Your task to perform on an android device: open app "DuckDuckGo Privacy Browser" Image 0: 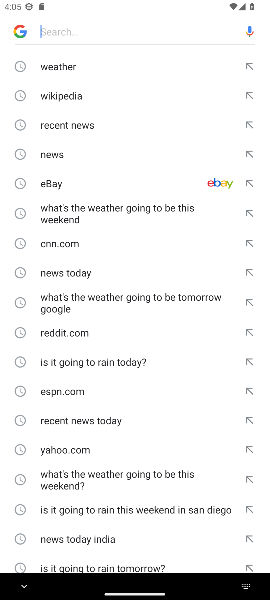
Step 0: press home button
Your task to perform on an android device: open app "DuckDuckGo Privacy Browser" Image 1: 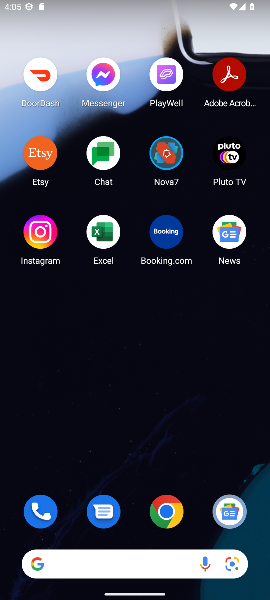
Step 1: drag from (94, 404) to (201, 179)
Your task to perform on an android device: open app "DuckDuckGo Privacy Browser" Image 2: 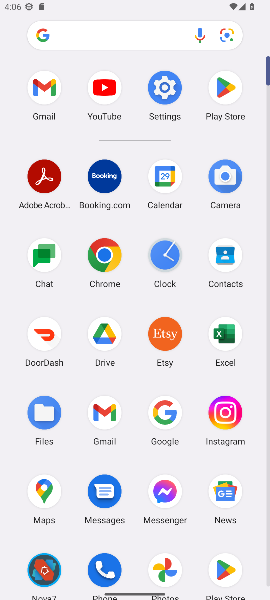
Step 2: click (234, 573)
Your task to perform on an android device: open app "DuckDuckGo Privacy Browser" Image 3: 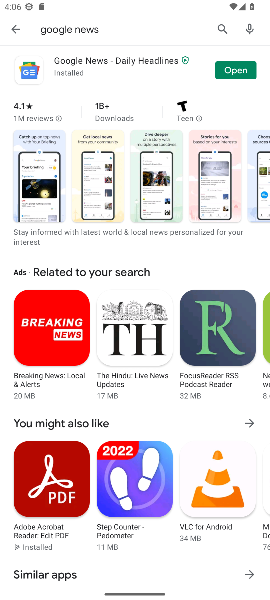
Step 3: click (13, 26)
Your task to perform on an android device: open app "DuckDuckGo Privacy Browser" Image 4: 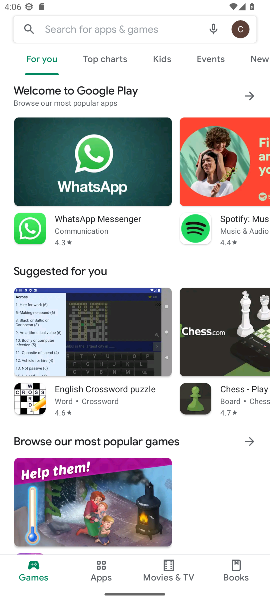
Step 4: click (68, 33)
Your task to perform on an android device: open app "DuckDuckGo Privacy Browser" Image 5: 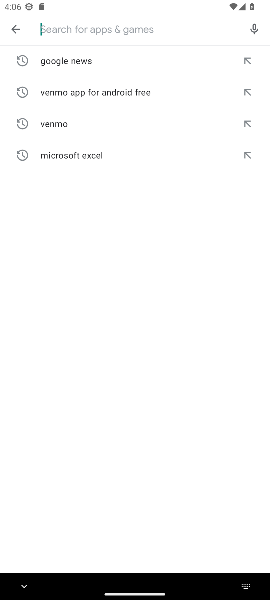
Step 5: type "DuckDuckGo Privacy Browser"
Your task to perform on an android device: open app "DuckDuckGo Privacy Browser" Image 6: 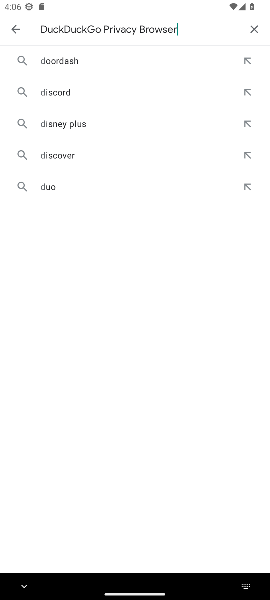
Step 6: type ""
Your task to perform on an android device: open app "DuckDuckGo Privacy Browser" Image 7: 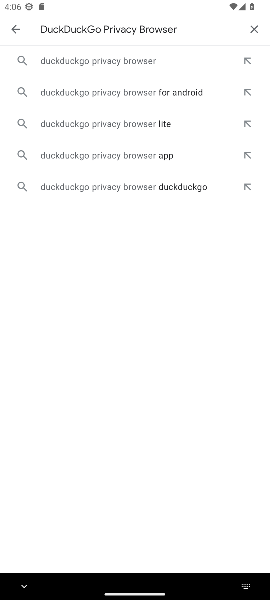
Step 7: click (80, 59)
Your task to perform on an android device: open app "DuckDuckGo Privacy Browser" Image 8: 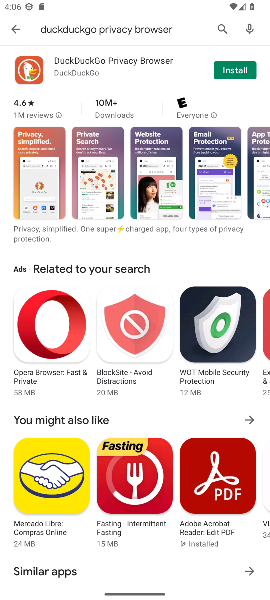
Step 8: click (230, 75)
Your task to perform on an android device: open app "DuckDuckGo Privacy Browser" Image 9: 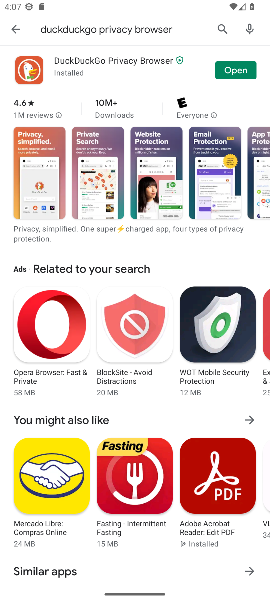
Step 9: task complete